Your task to perform on an android device: Do I have any events today? Image 0: 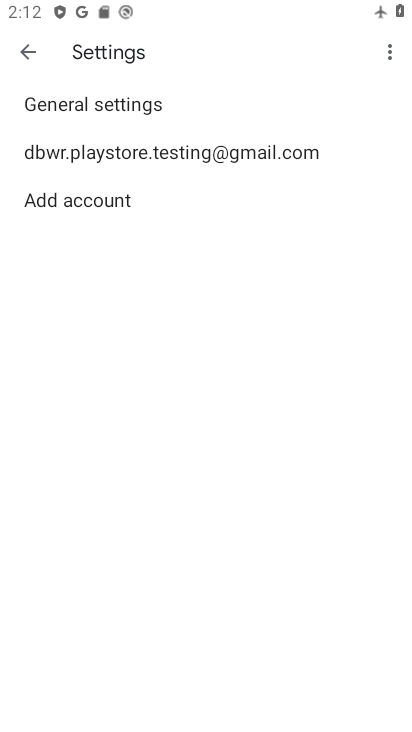
Step 0: press home button
Your task to perform on an android device: Do I have any events today? Image 1: 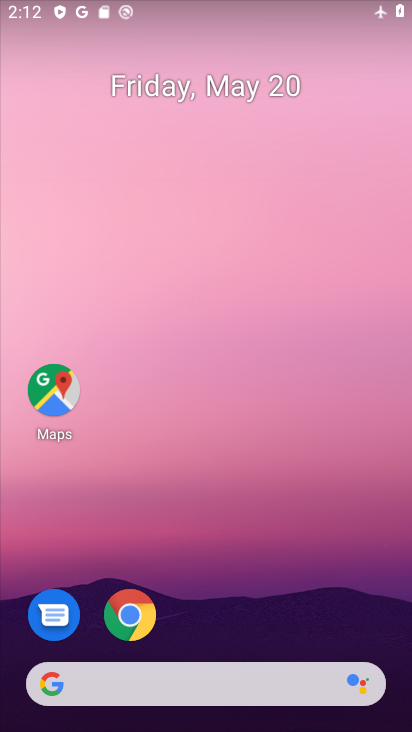
Step 1: drag from (230, 617) to (267, 2)
Your task to perform on an android device: Do I have any events today? Image 2: 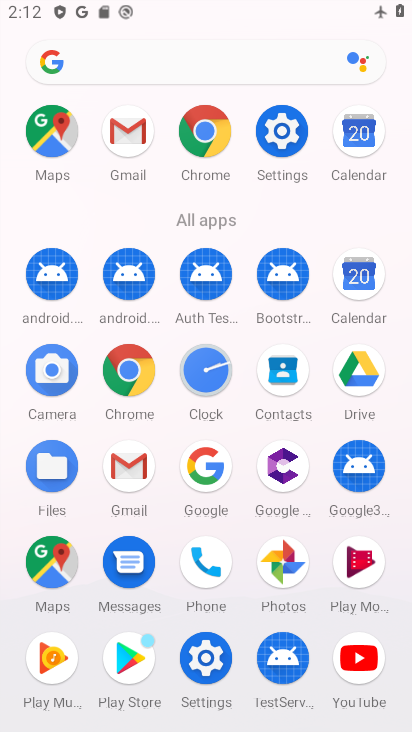
Step 2: click (365, 135)
Your task to perform on an android device: Do I have any events today? Image 3: 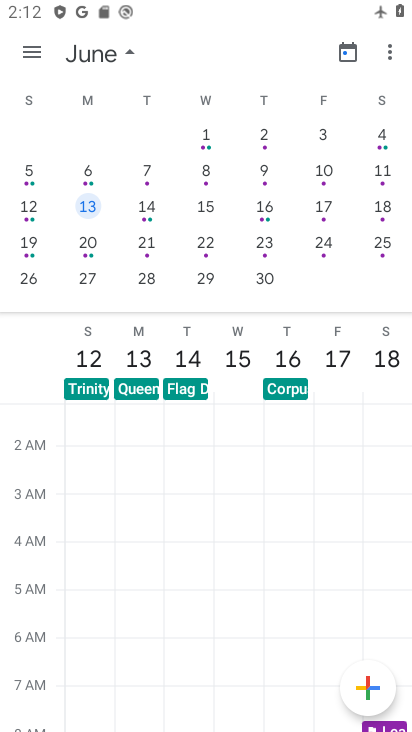
Step 3: click (123, 61)
Your task to perform on an android device: Do I have any events today? Image 4: 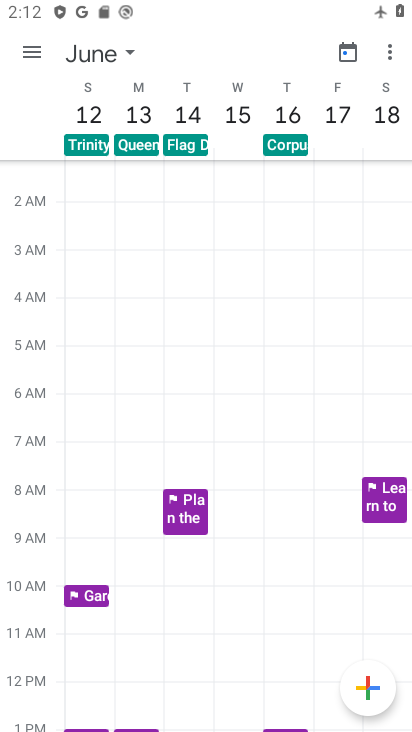
Step 4: click (125, 60)
Your task to perform on an android device: Do I have any events today? Image 5: 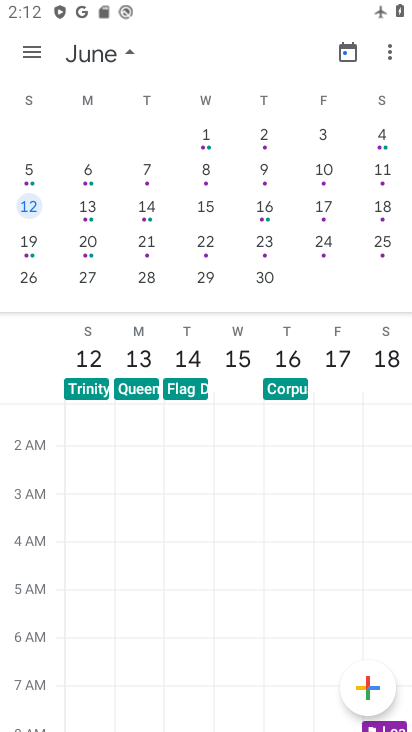
Step 5: drag from (33, 220) to (381, 187)
Your task to perform on an android device: Do I have any events today? Image 6: 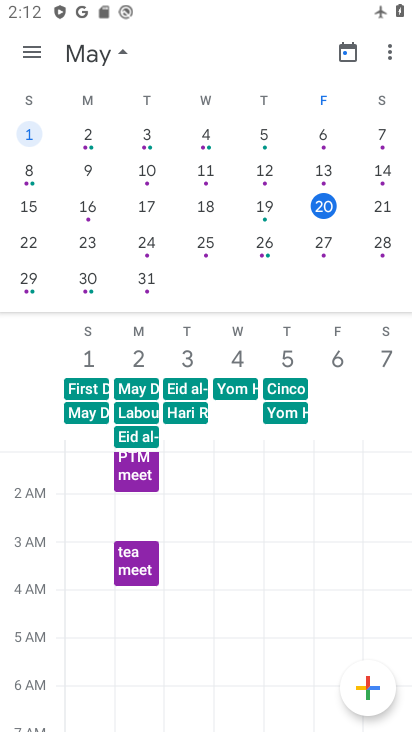
Step 6: click (315, 203)
Your task to perform on an android device: Do I have any events today? Image 7: 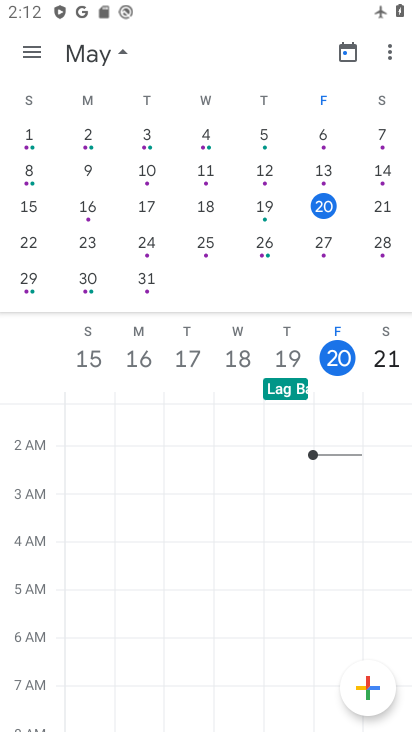
Step 7: click (27, 59)
Your task to perform on an android device: Do I have any events today? Image 8: 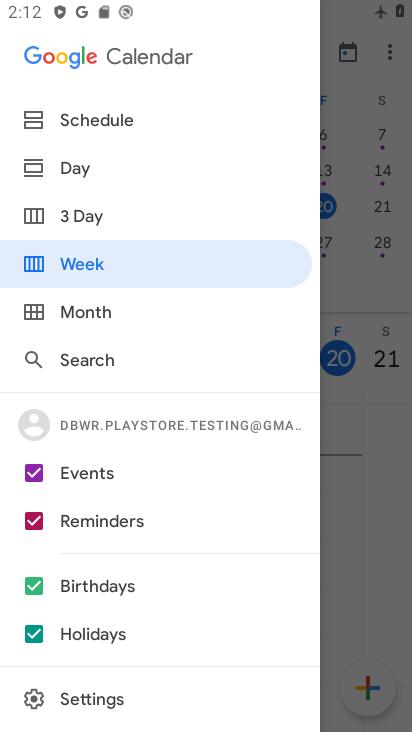
Step 8: click (61, 151)
Your task to perform on an android device: Do I have any events today? Image 9: 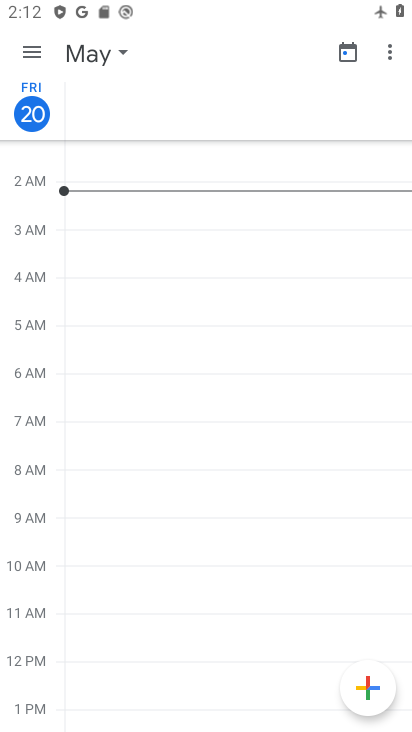
Step 9: task complete